Your task to perform on an android device: visit the assistant section in the google photos Image 0: 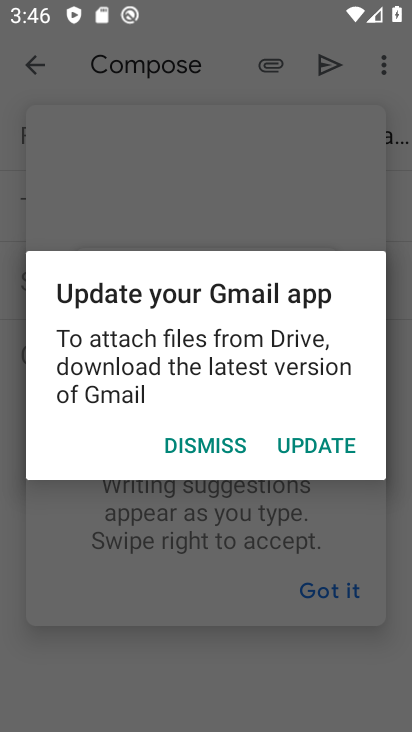
Step 0: press back button
Your task to perform on an android device: visit the assistant section in the google photos Image 1: 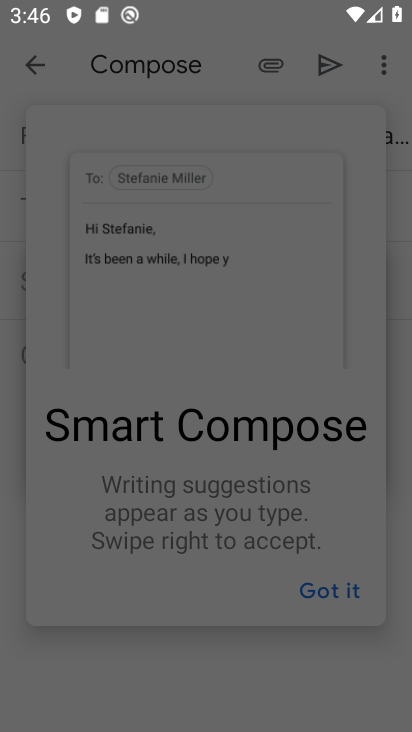
Step 1: press back button
Your task to perform on an android device: visit the assistant section in the google photos Image 2: 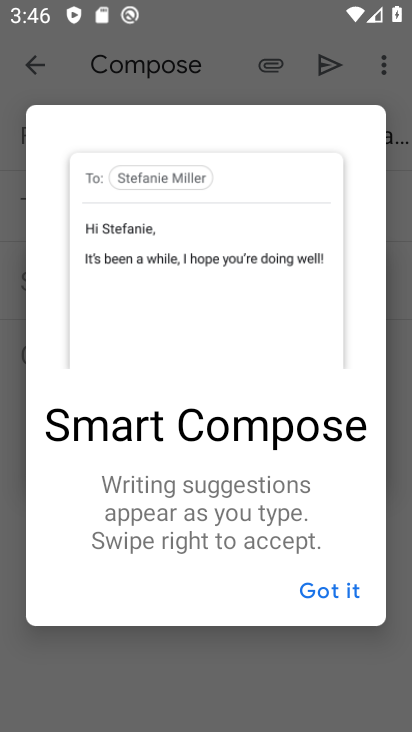
Step 2: press home button
Your task to perform on an android device: visit the assistant section in the google photos Image 3: 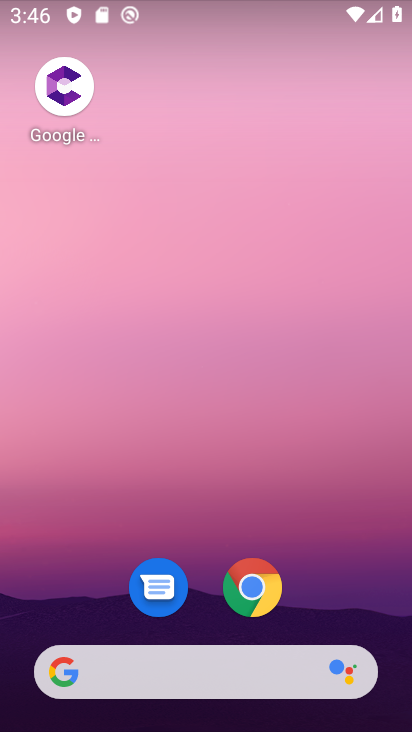
Step 3: drag from (304, 430) to (232, 7)
Your task to perform on an android device: visit the assistant section in the google photos Image 4: 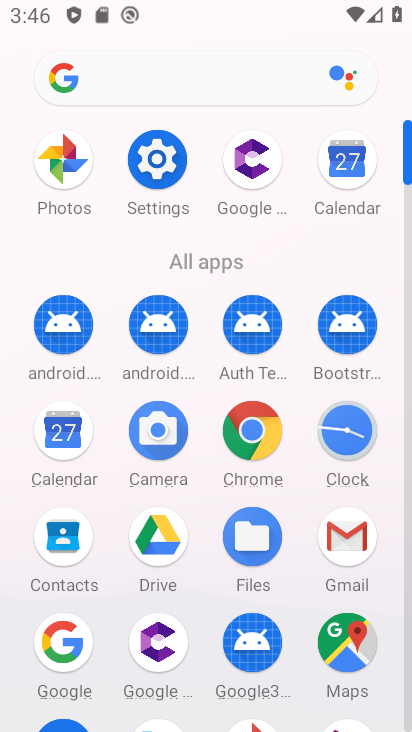
Step 4: drag from (13, 526) to (17, 203)
Your task to perform on an android device: visit the assistant section in the google photos Image 5: 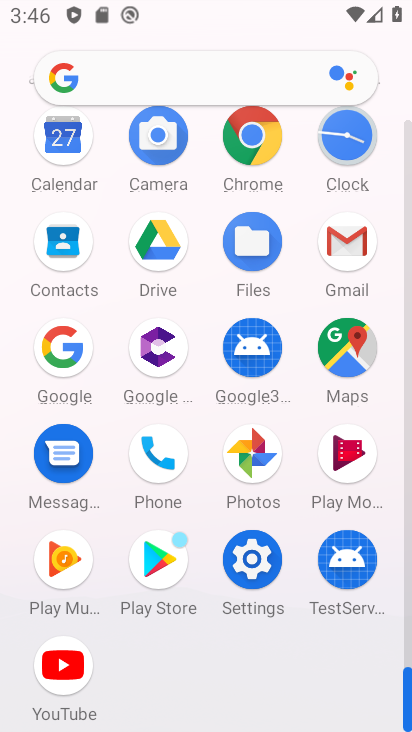
Step 5: click (253, 452)
Your task to perform on an android device: visit the assistant section in the google photos Image 6: 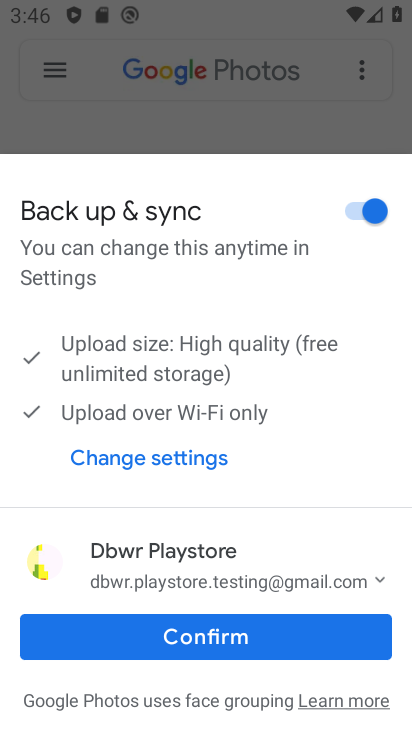
Step 6: click (181, 629)
Your task to perform on an android device: visit the assistant section in the google photos Image 7: 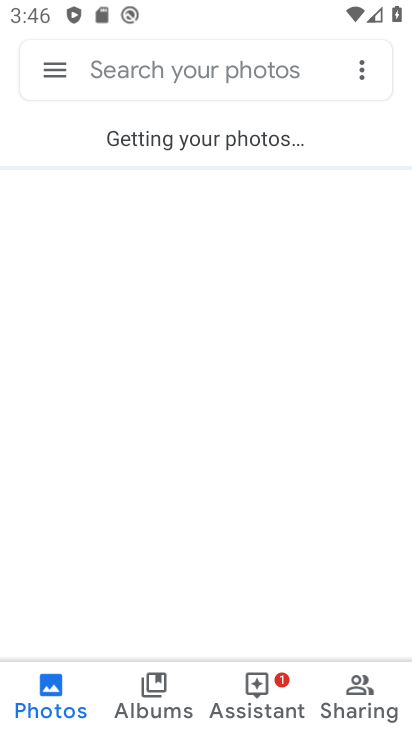
Step 7: click (258, 695)
Your task to perform on an android device: visit the assistant section in the google photos Image 8: 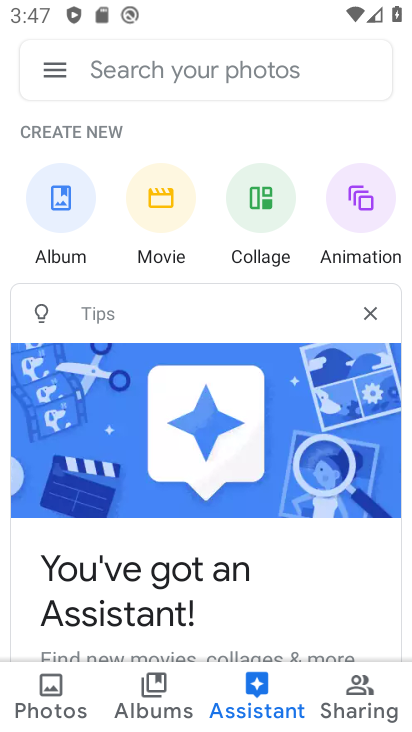
Step 8: task complete